Your task to perform on an android device: turn off javascript in the chrome app Image 0: 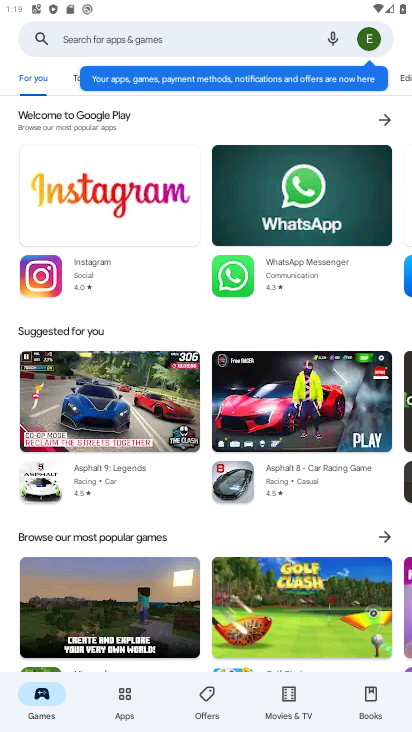
Step 0: press home button
Your task to perform on an android device: turn off javascript in the chrome app Image 1: 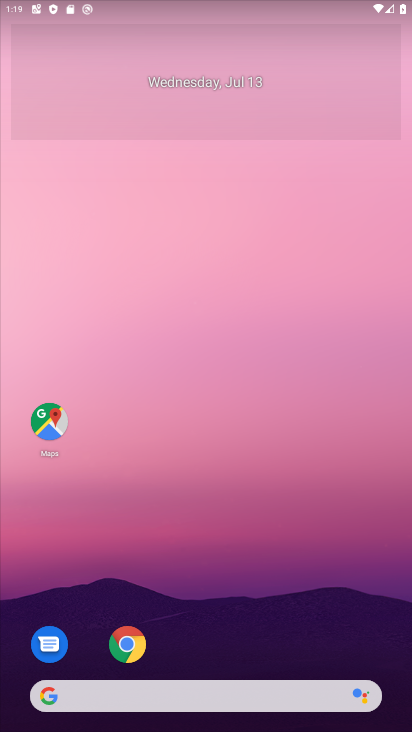
Step 1: click (123, 641)
Your task to perform on an android device: turn off javascript in the chrome app Image 2: 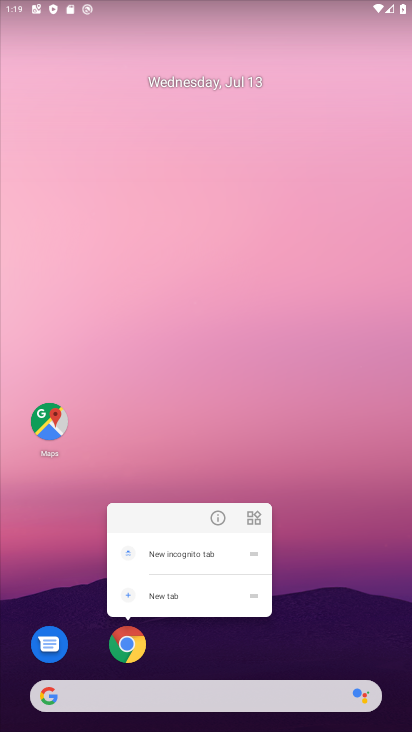
Step 2: click (131, 639)
Your task to perform on an android device: turn off javascript in the chrome app Image 3: 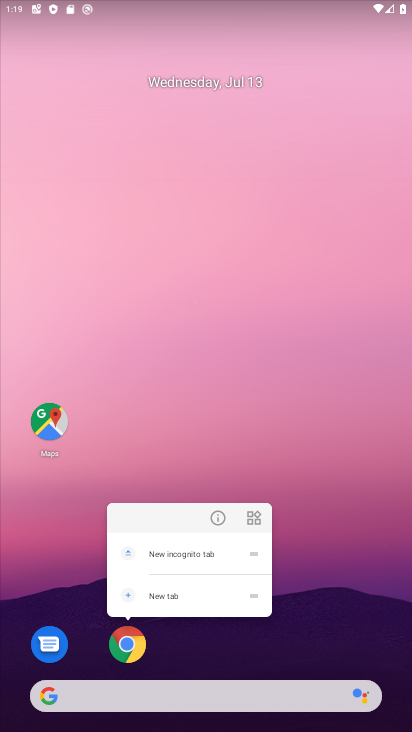
Step 3: click (119, 640)
Your task to perform on an android device: turn off javascript in the chrome app Image 4: 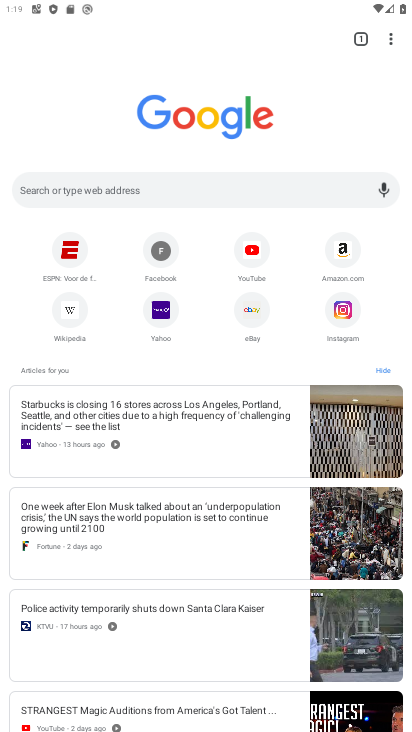
Step 4: click (391, 33)
Your task to perform on an android device: turn off javascript in the chrome app Image 5: 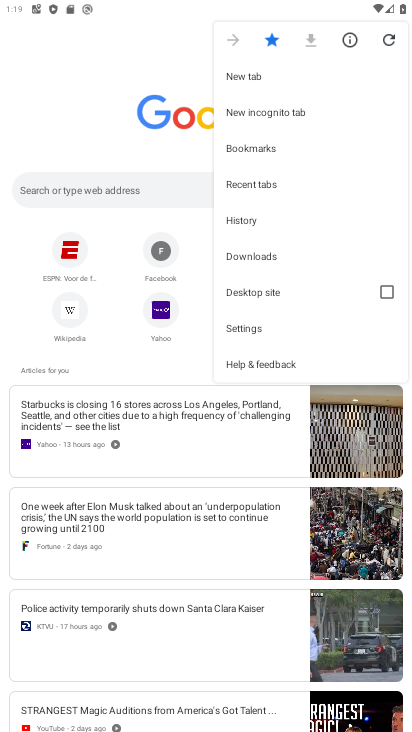
Step 5: click (283, 333)
Your task to perform on an android device: turn off javascript in the chrome app Image 6: 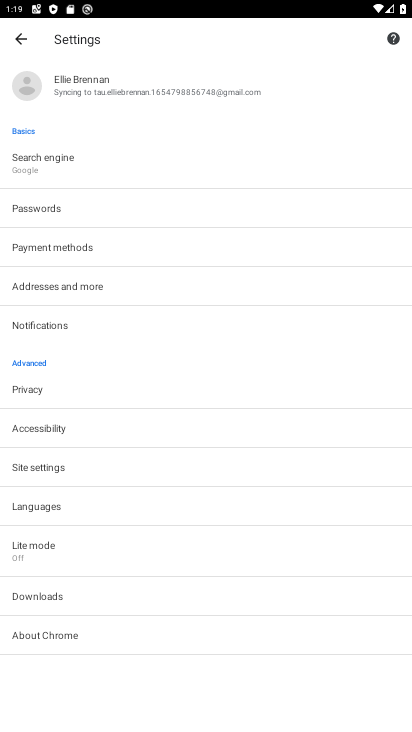
Step 6: click (34, 467)
Your task to perform on an android device: turn off javascript in the chrome app Image 7: 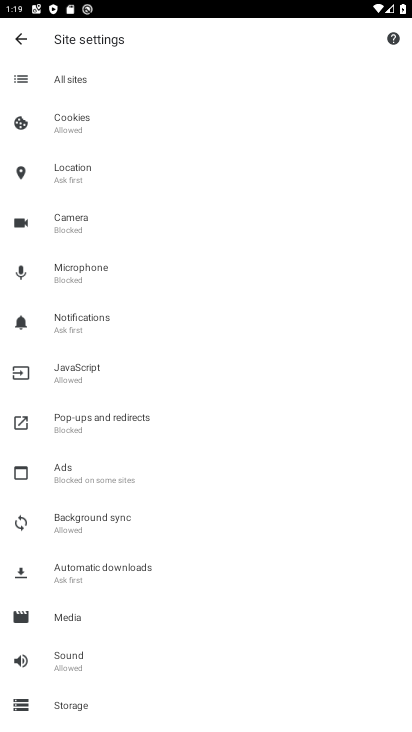
Step 7: click (89, 373)
Your task to perform on an android device: turn off javascript in the chrome app Image 8: 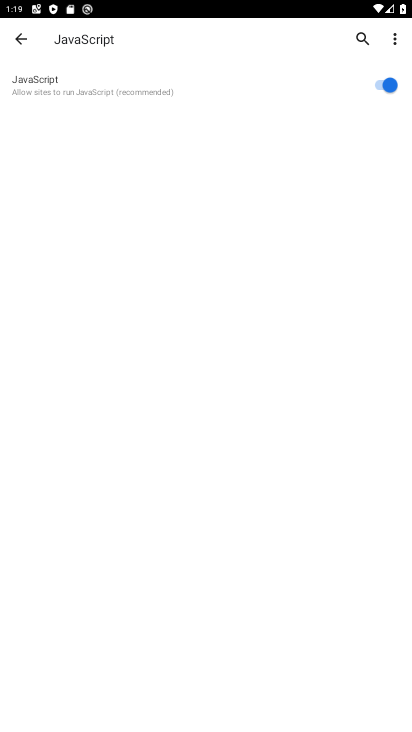
Step 8: click (389, 77)
Your task to perform on an android device: turn off javascript in the chrome app Image 9: 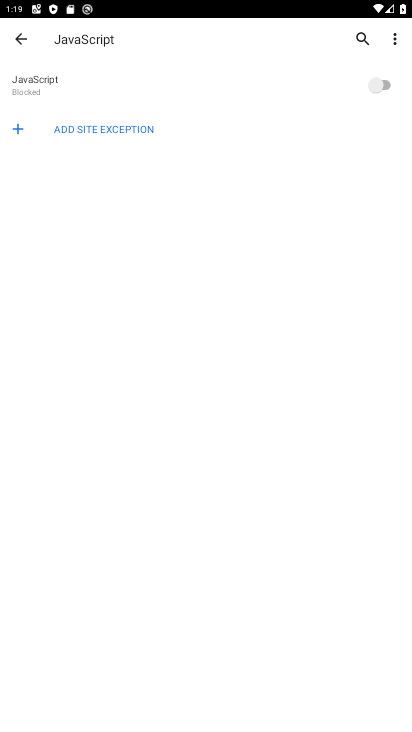
Step 9: task complete